Your task to perform on an android device: Open network settings Image 0: 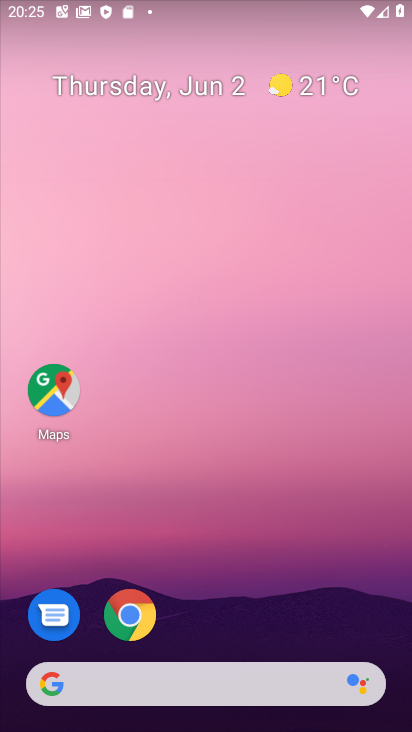
Step 0: task complete